Your task to perform on an android device: Open internet settings Image 0: 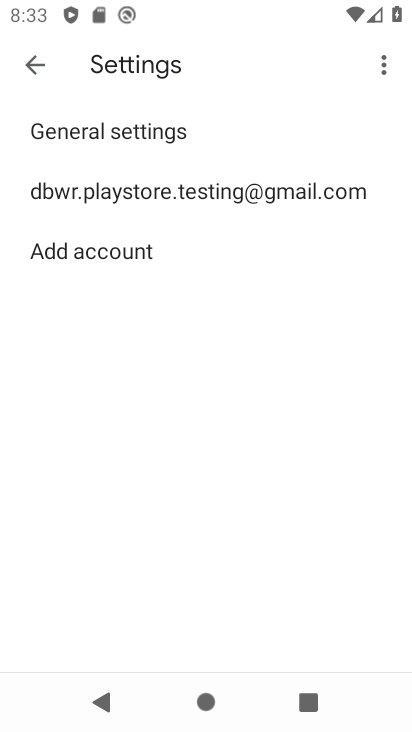
Step 0: press home button
Your task to perform on an android device: Open internet settings Image 1: 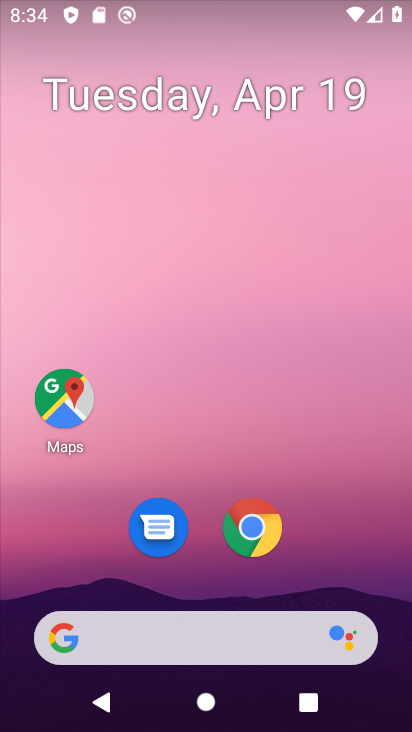
Step 1: drag from (312, 521) to (323, 219)
Your task to perform on an android device: Open internet settings Image 2: 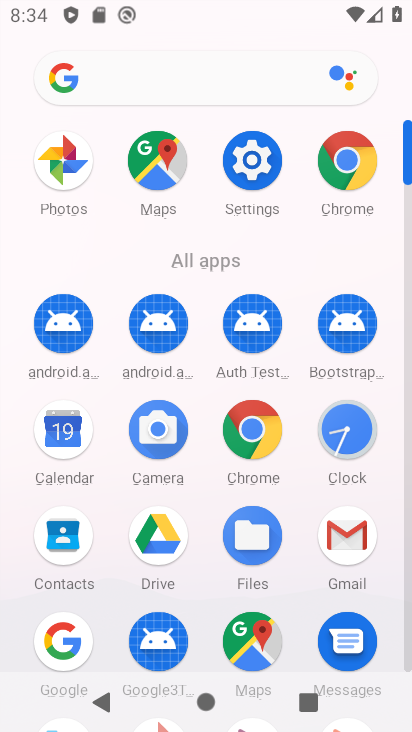
Step 2: click (252, 152)
Your task to perform on an android device: Open internet settings Image 3: 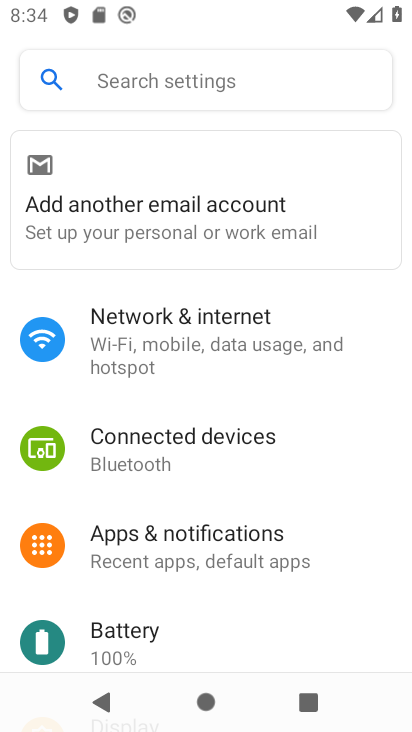
Step 3: click (193, 319)
Your task to perform on an android device: Open internet settings Image 4: 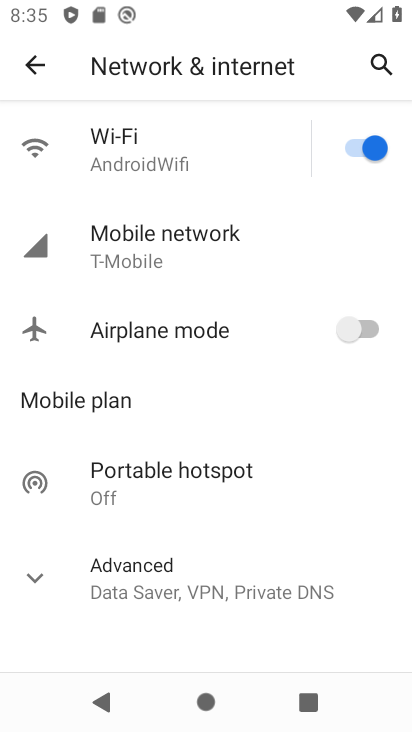
Step 4: task complete